Your task to perform on an android device: Check my email inbox Image 0: 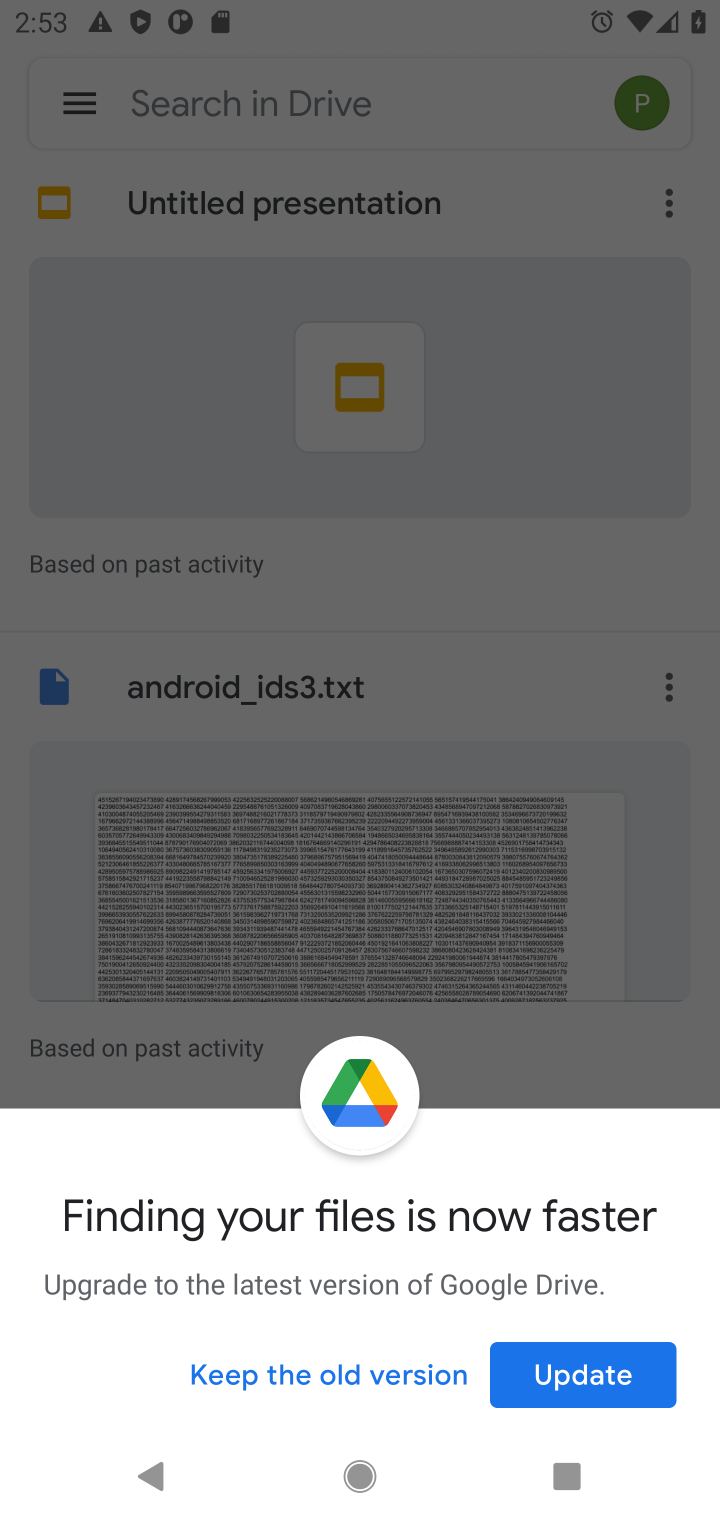
Step 0: press home button
Your task to perform on an android device: Check my email inbox Image 1: 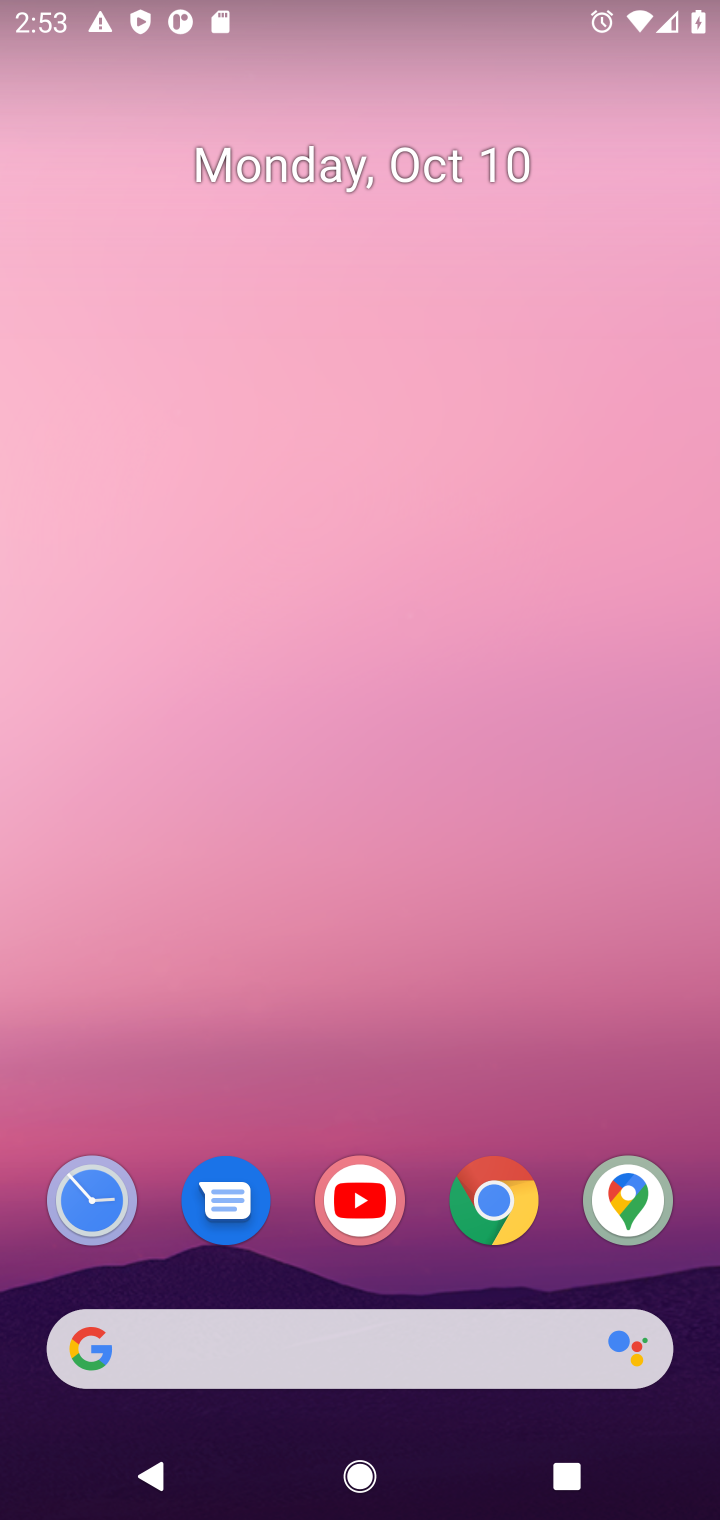
Step 1: drag from (358, 1102) to (518, 71)
Your task to perform on an android device: Check my email inbox Image 2: 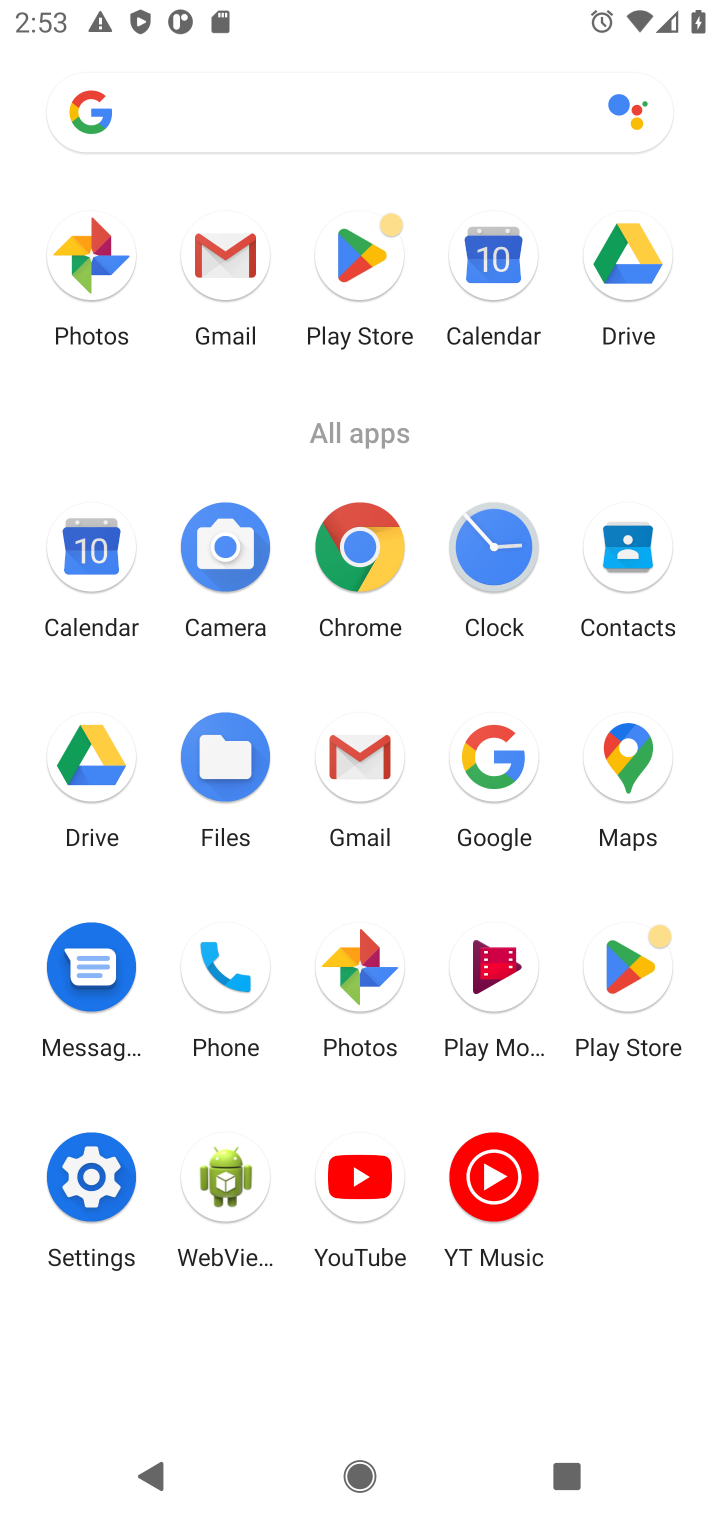
Step 2: click (218, 263)
Your task to perform on an android device: Check my email inbox Image 3: 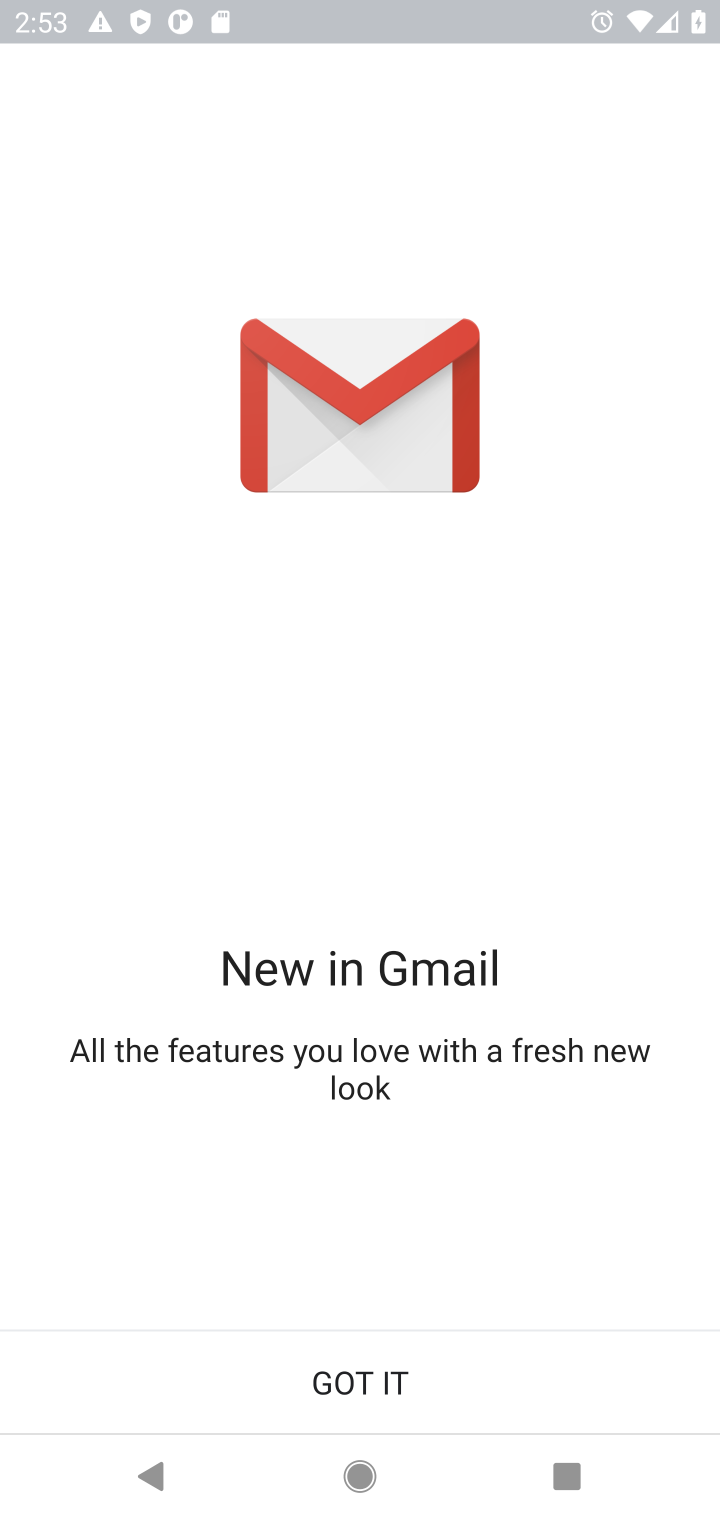
Step 3: click (347, 1380)
Your task to perform on an android device: Check my email inbox Image 4: 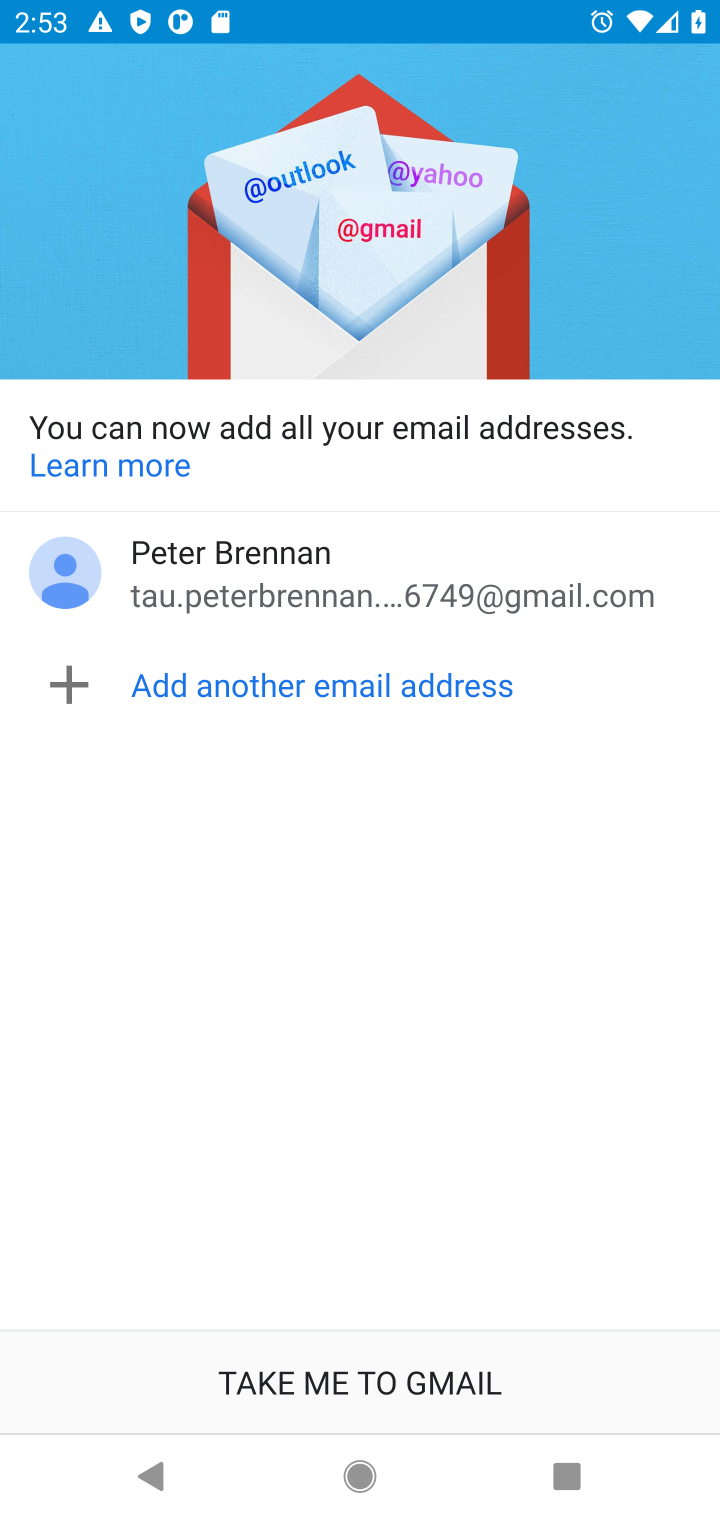
Step 4: click (394, 1380)
Your task to perform on an android device: Check my email inbox Image 5: 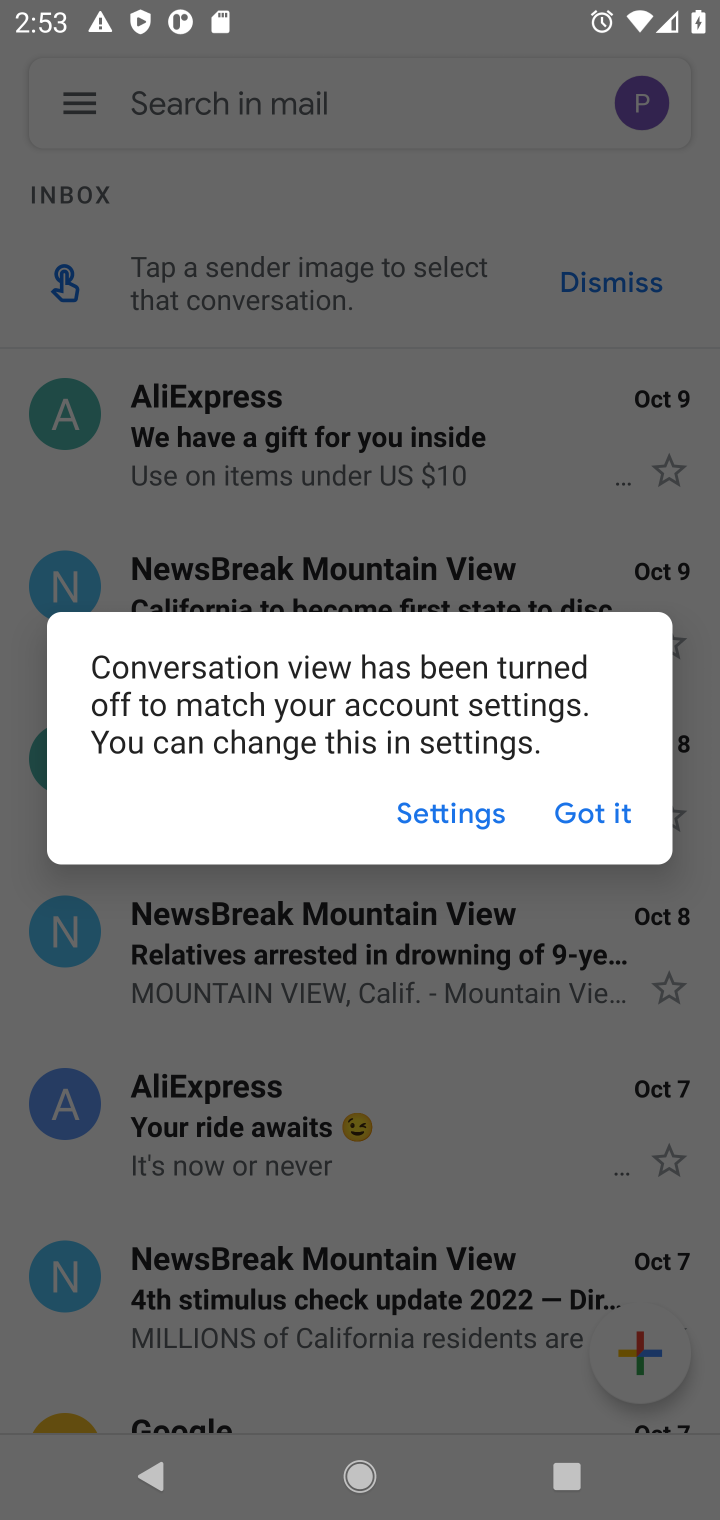
Step 5: click (585, 816)
Your task to perform on an android device: Check my email inbox Image 6: 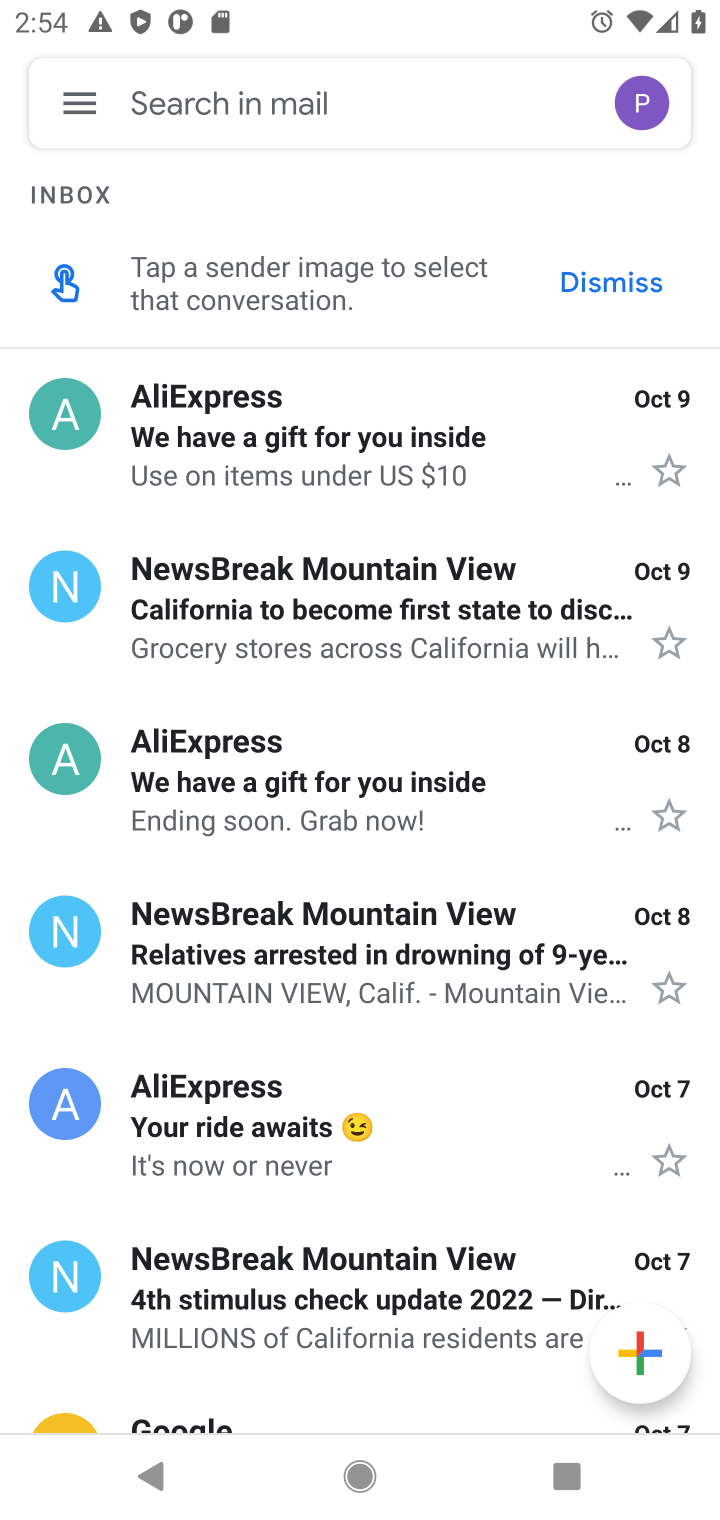
Step 6: task complete